Your task to perform on an android device: open the mobile data screen to see how much data has been used Image 0: 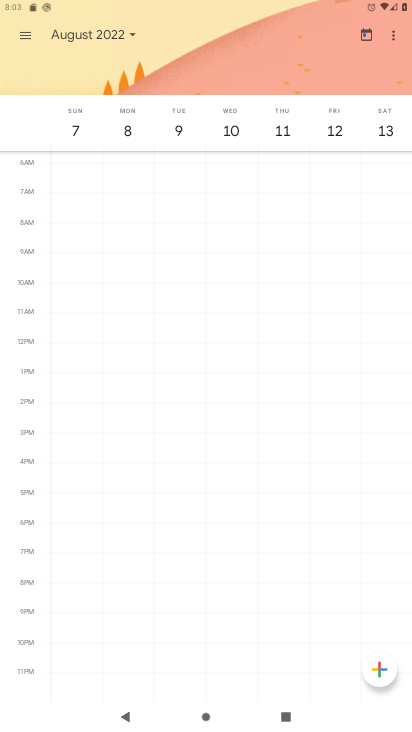
Step 0: press home button
Your task to perform on an android device: open the mobile data screen to see how much data has been used Image 1: 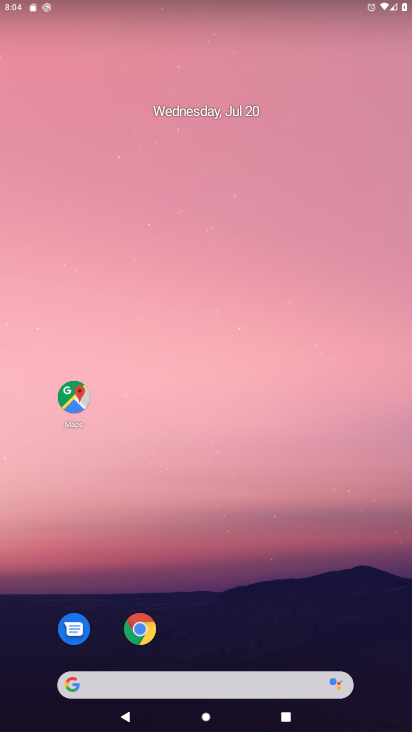
Step 1: drag from (294, 8) to (282, 491)
Your task to perform on an android device: open the mobile data screen to see how much data has been used Image 2: 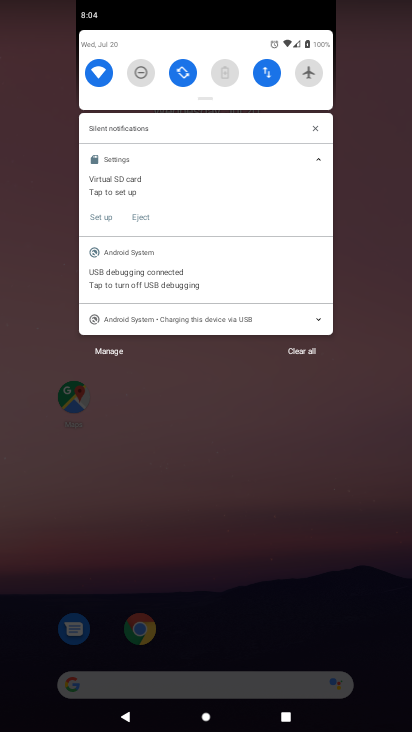
Step 2: click (270, 77)
Your task to perform on an android device: open the mobile data screen to see how much data has been used Image 3: 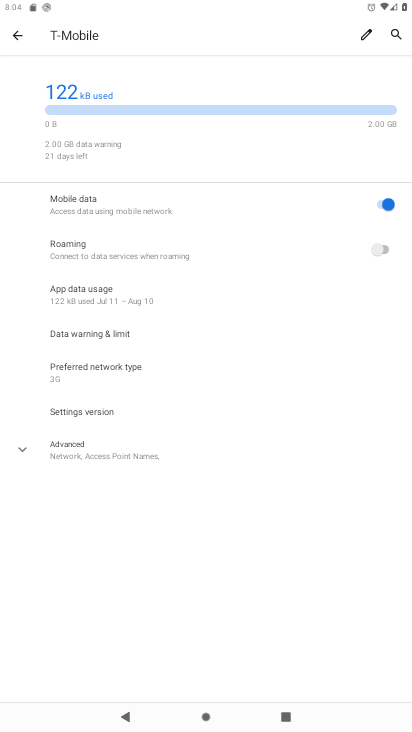
Step 3: task complete